Your task to perform on an android device: create a new album in the google photos Image 0: 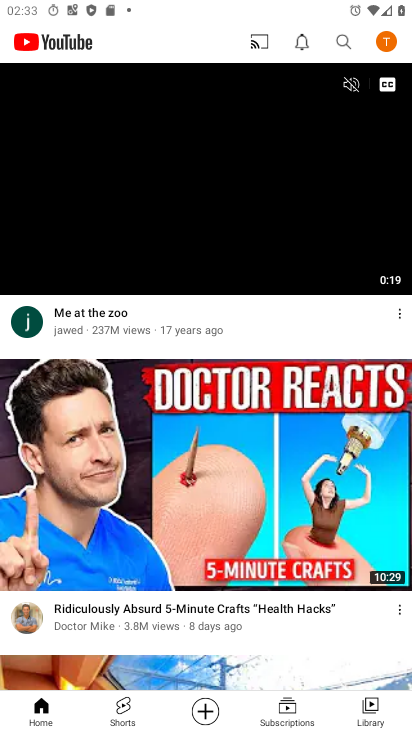
Step 0: press home button
Your task to perform on an android device: create a new album in the google photos Image 1: 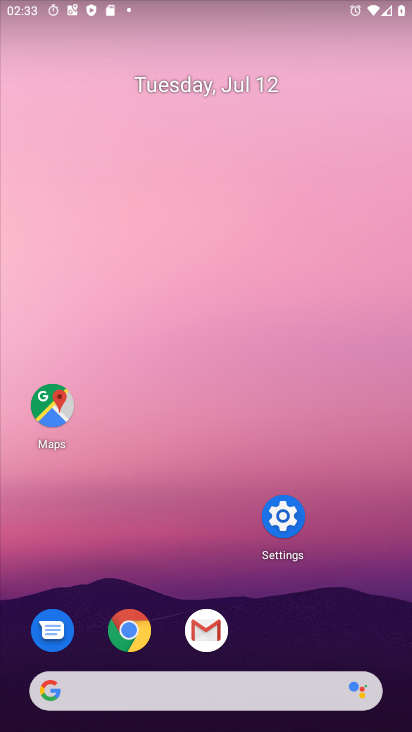
Step 1: click (167, 319)
Your task to perform on an android device: create a new album in the google photos Image 2: 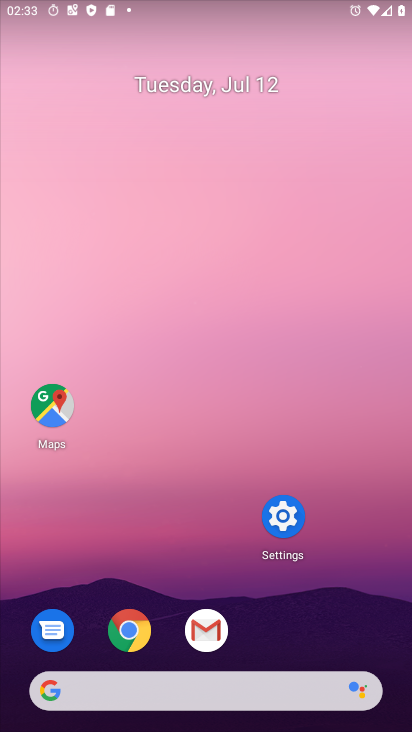
Step 2: drag from (122, 264) to (96, 115)
Your task to perform on an android device: create a new album in the google photos Image 3: 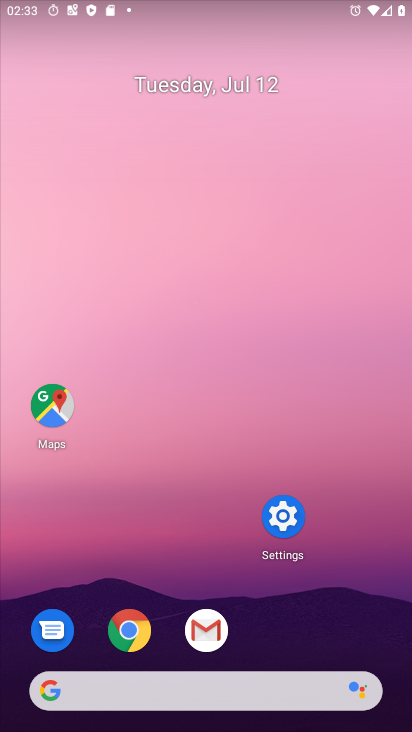
Step 3: drag from (109, 709) to (201, 0)
Your task to perform on an android device: create a new album in the google photos Image 4: 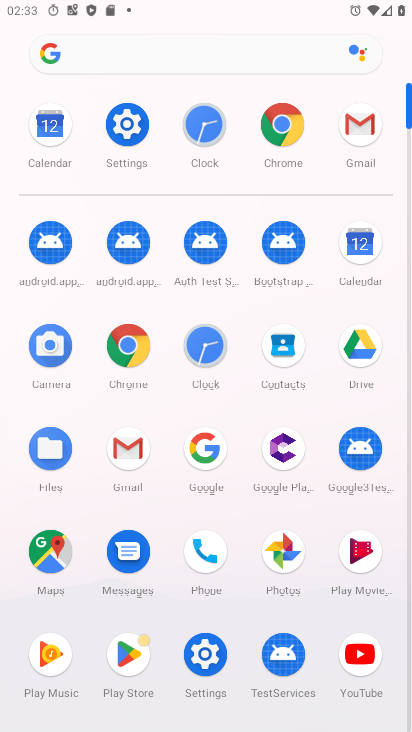
Step 4: click (266, 547)
Your task to perform on an android device: create a new album in the google photos Image 5: 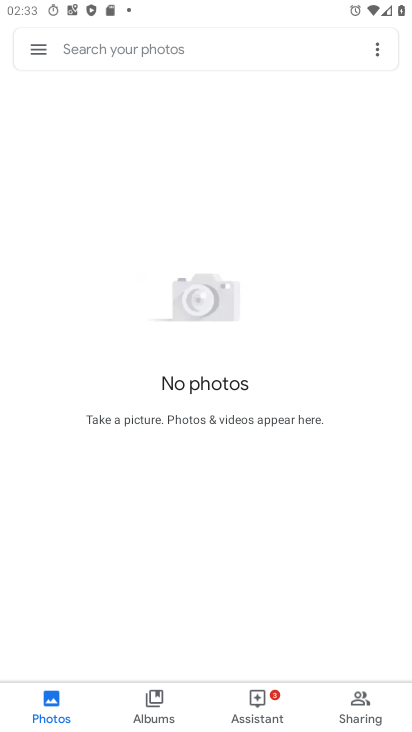
Step 5: click (148, 695)
Your task to perform on an android device: create a new album in the google photos Image 6: 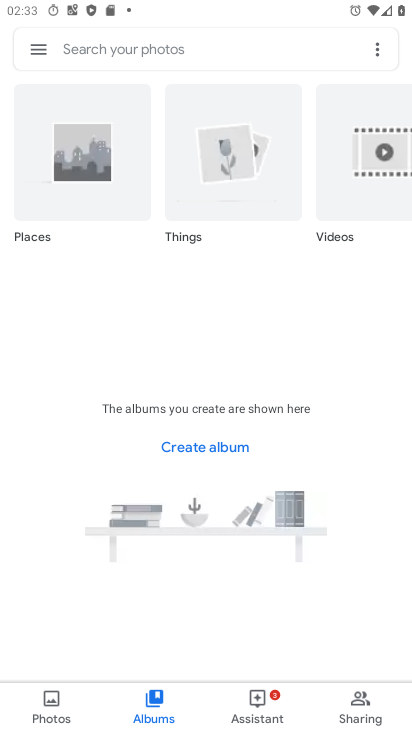
Step 6: click (194, 452)
Your task to perform on an android device: create a new album in the google photos Image 7: 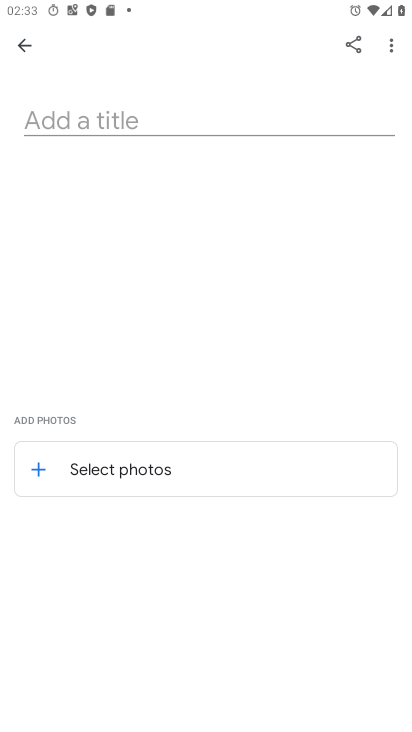
Step 7: click (107, 139)
Your task to perform on an android device: create a new album in the google photos Image 8: 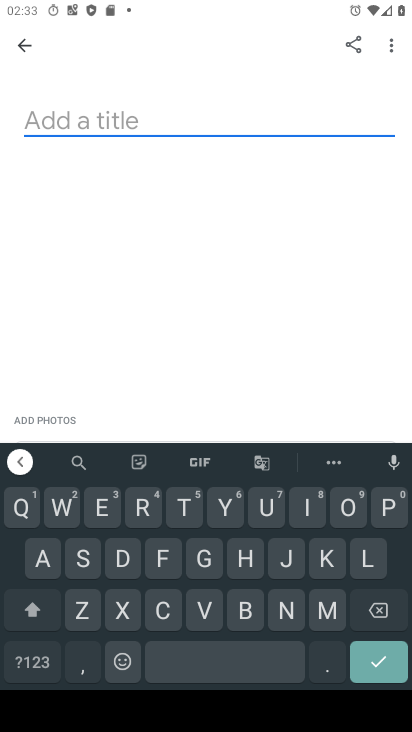
Step 8: click (155, 542)
Your task to perform on an android device: create a new album in the google photos Image 9: 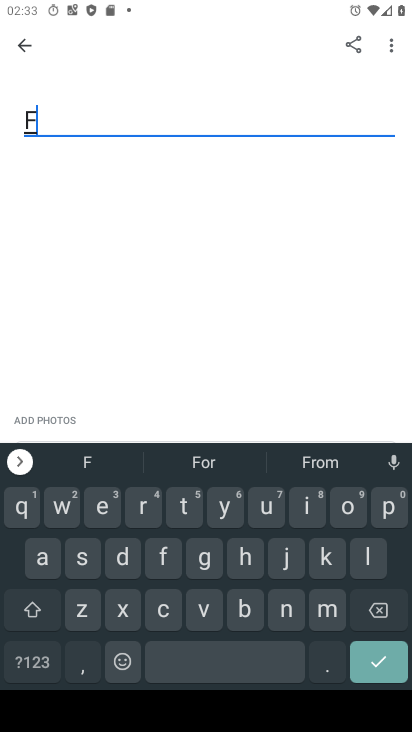
Step 9: drag from (209, 538) to (128, 585)
Your task to perform on an android device: create a new album in the google photos Image 10: 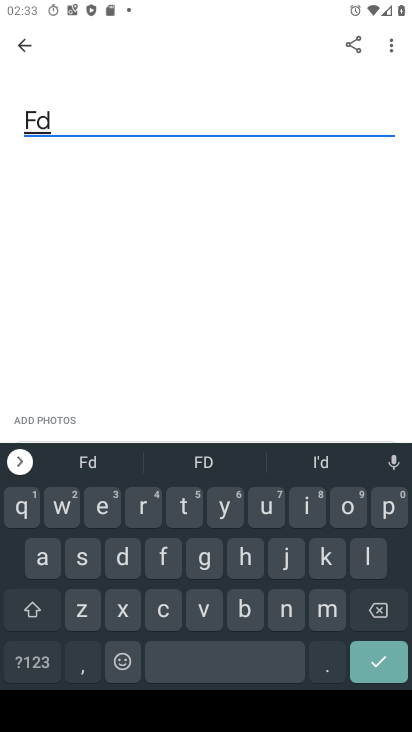
Step 10: click (219, 566)
Your task to perform on an android device: create a new album in the google photos Image 11: 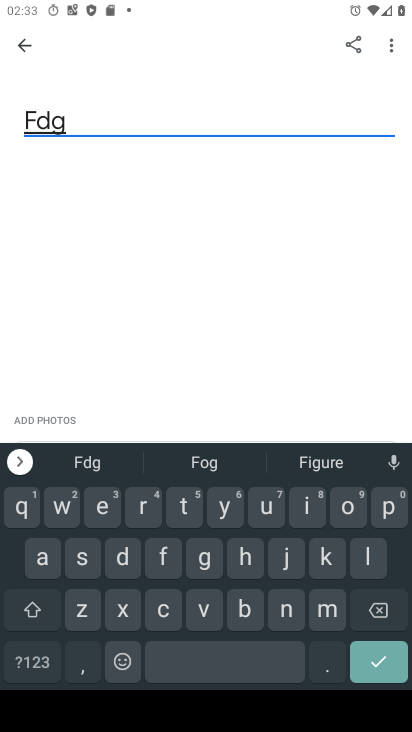
Step 11: click (378, 669)
Your task to perform on an android device: create a new album in the google photos Image 12: 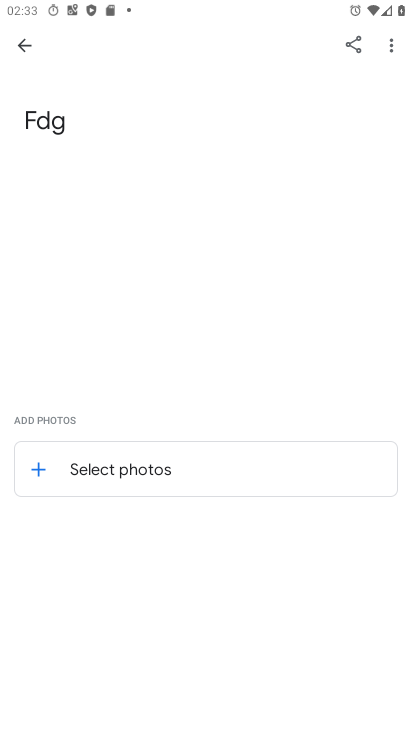
Step 12: click (47, 121)
Your task to perform on an android device: create a new album in the google photos Image 13: 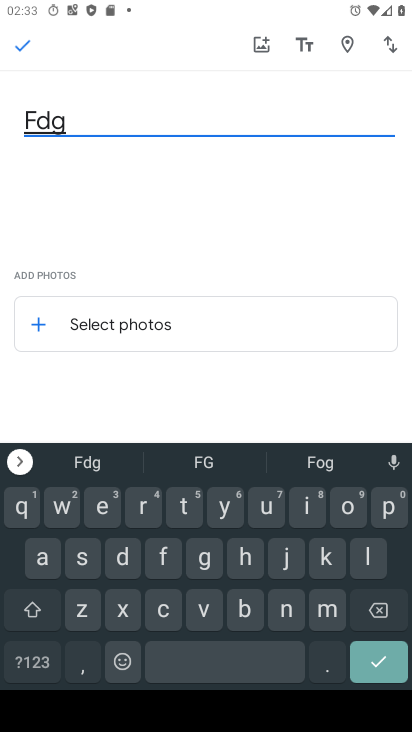
Step 13: click (28, 47)
Your task to perform on an android device: create a new album in the google photos Image 14: 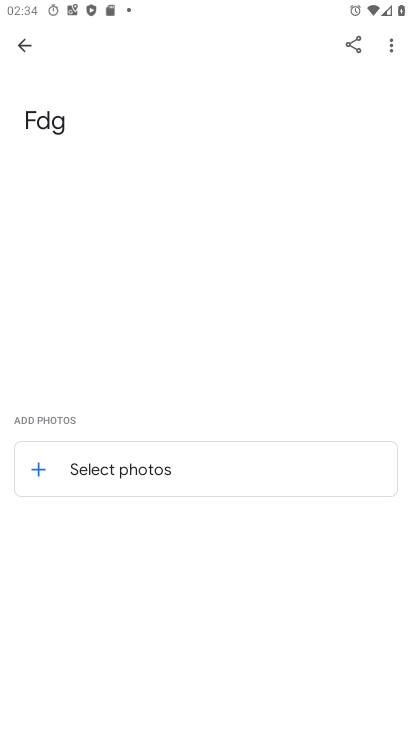
Step 14: task complete